Your task to perform on an android device: Do I have any events this weekend? Image 0: 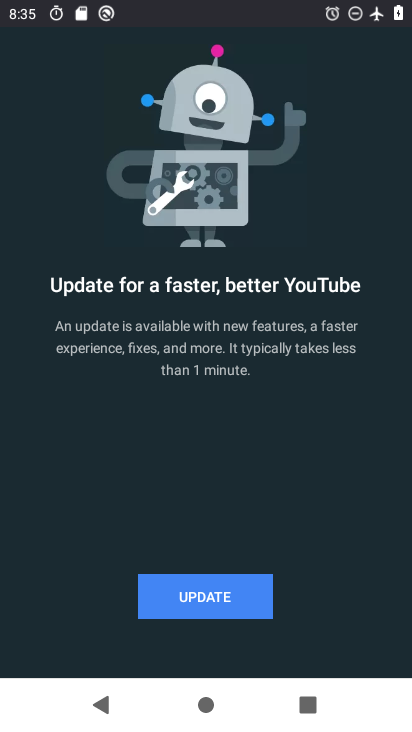
Step 0: press home button
Your task to perform on an android device: Do I have any events this weekend? Image 1: 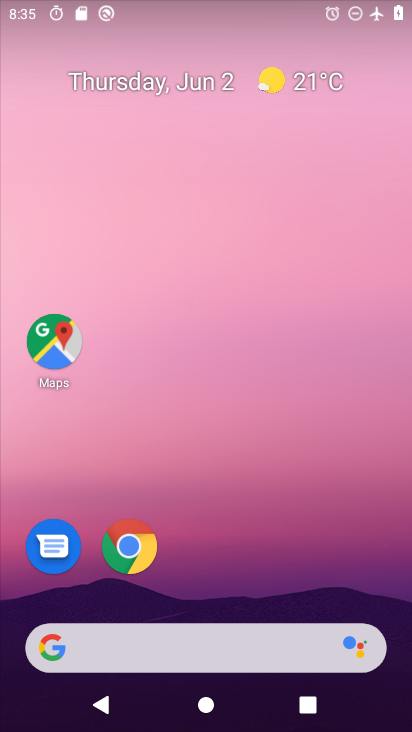
Step 1: drag from (374, 568) to (385, 125)
Your task to perform on an android device: Do I have any events this weekend? Image 2: 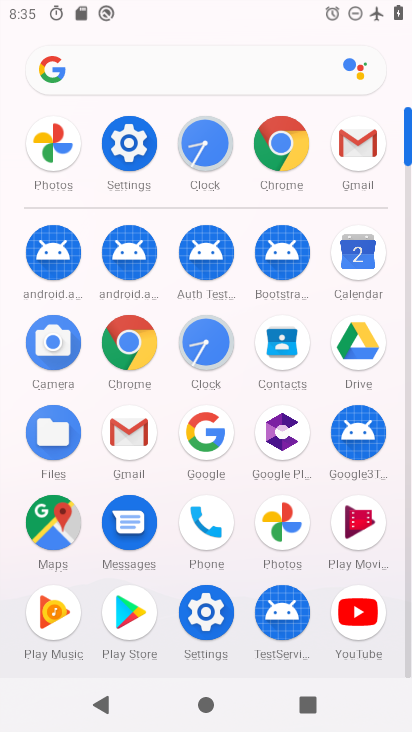
Step 2: drag from (244, 548) to (251, 273)
Your task to perform on an android device: Do I have any events this weekend? Image 3: 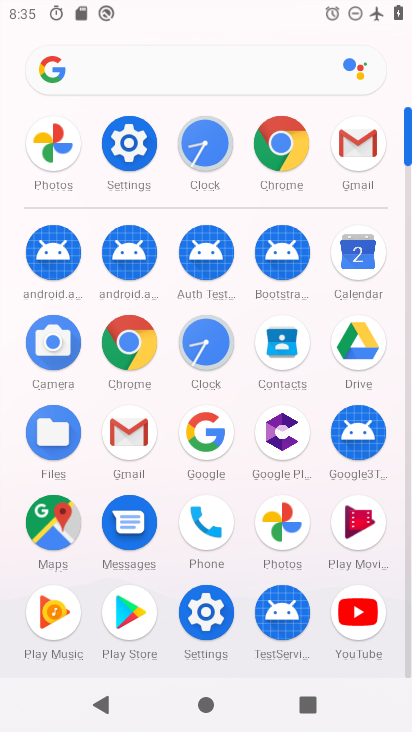
Step 3: click (121, 342)
Your task to perform on an android device: Do I have any events this weekend? Image 4: 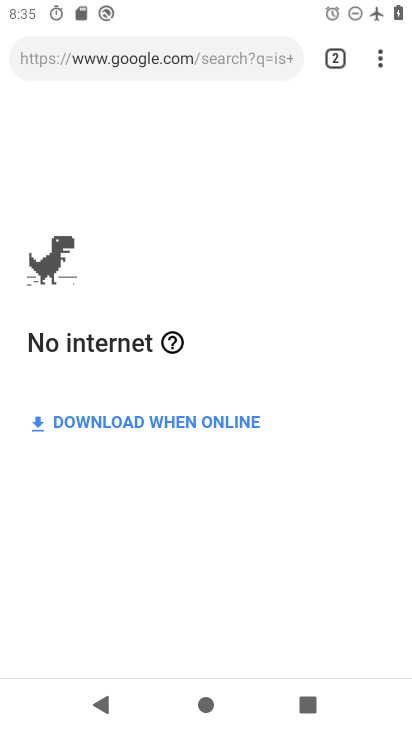
Step 4: press home button
Your task to perform on an android device: Do I have any events this weekend? Image 5: 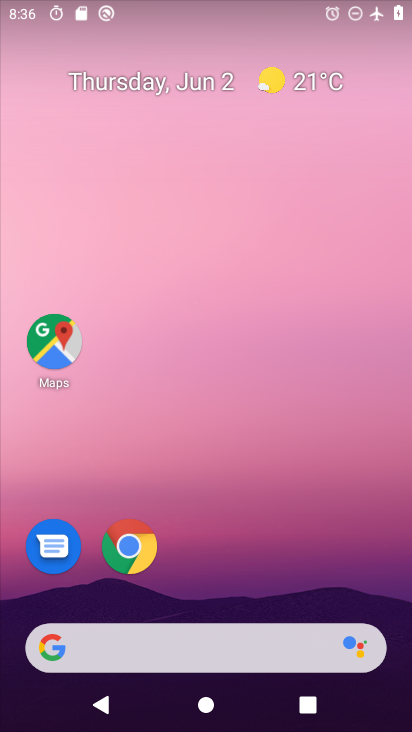
Step 5: drag from (322, 579) to (314, 140)
Your task to perform on an android device: Do I have any events this weekend? Image 6: 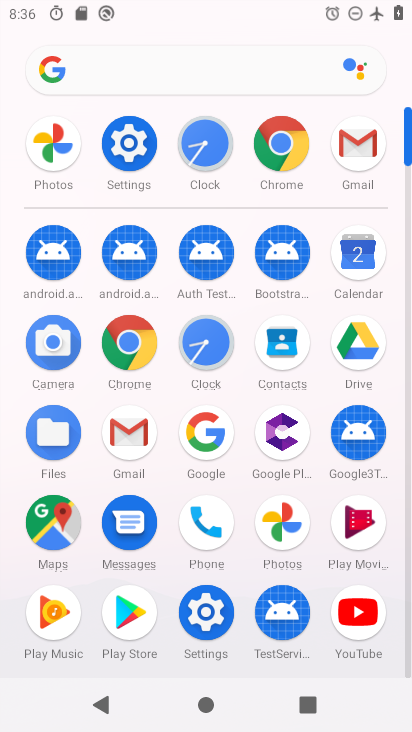
Step 6: drag from (243, 545) to (243, 292)
Your task to perform on an android device: Do I have any events this weekend? Image 7: 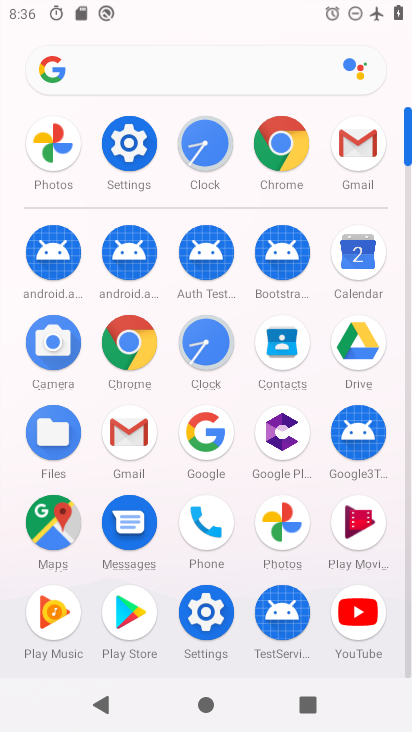
Step 7: click (362, 263)
Your task to perform on an android device: Do I have any events this weekend? Image 8: 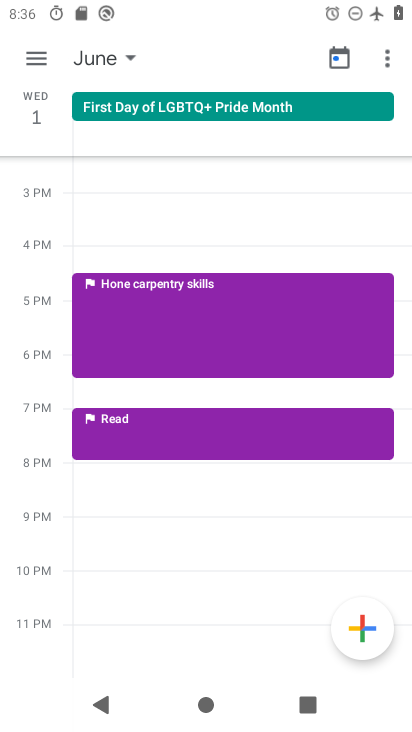
Step 8: drag from (277, 562) to (277, 243)
Your task to perform on an android device: Do I have any events this weekend? Image 9: 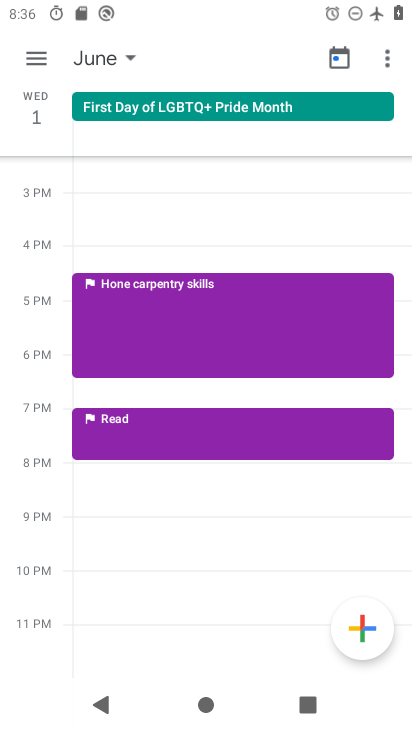
Step 9: click (99, 60)
Your task to perform on an android device: Do I have any events this weekend? Image 10: 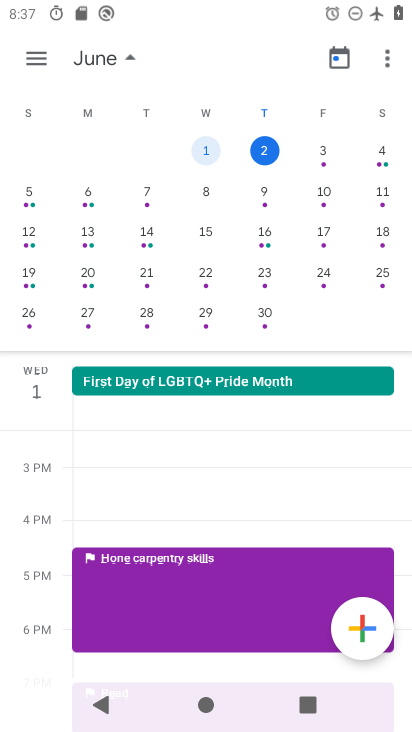
Step 10: task complete